Your task to perform on an android device: visit the assistant section in the google photos Image 0: 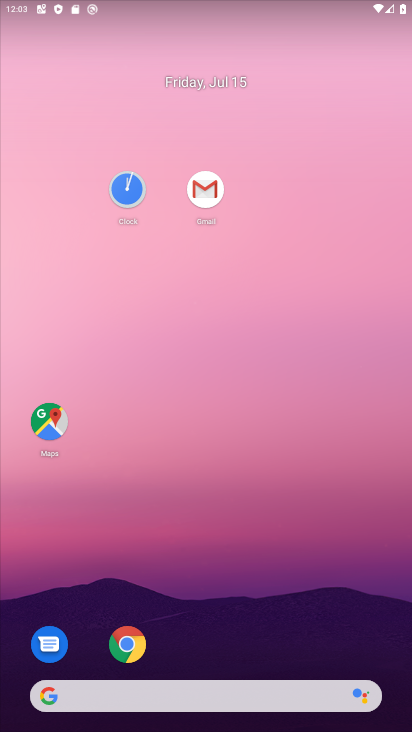
Step 0: drag from (199, 584) to (231, 199)
Your task to perform on an android device: visit the assistant section in the google photos Image 1: 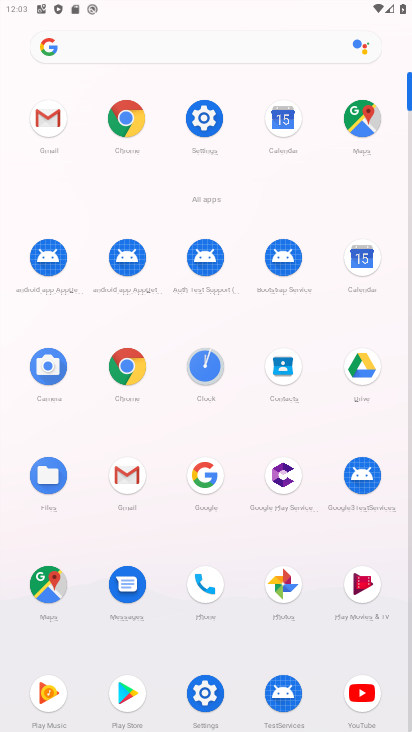
Step 1: drag from (279, 582) to (260, 283)
Your task to perform on an android device: visit the assistant section in the google photos Image 2: 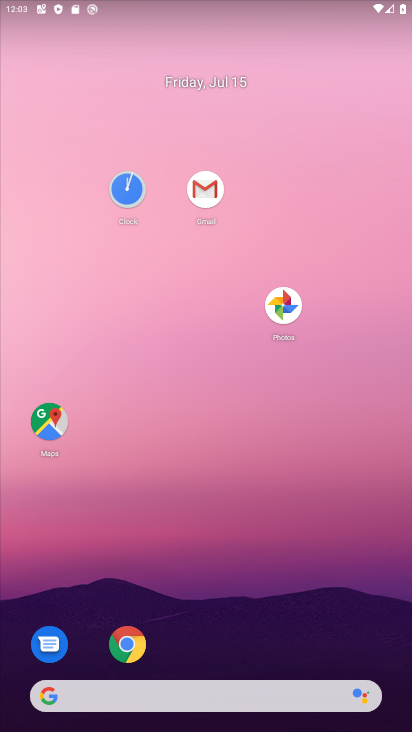
Step 2: click (284, 305)
Your task to perform on an android device: visit the assistant section in the google photos Image 3: 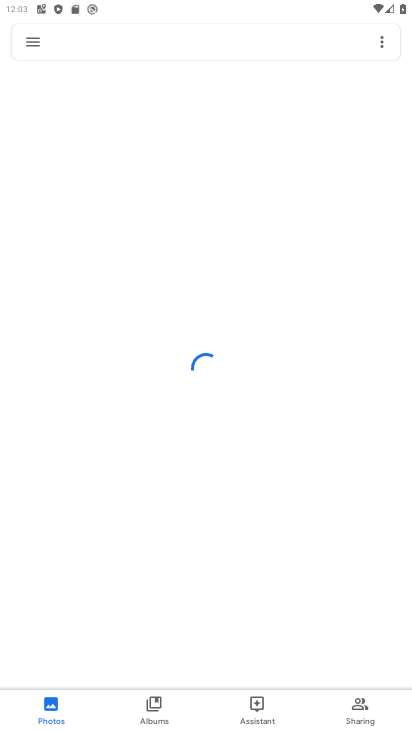
Step 3: click (261, 715)
Your task to perform on an android device: visit the assistant section in the google photos Image 4: 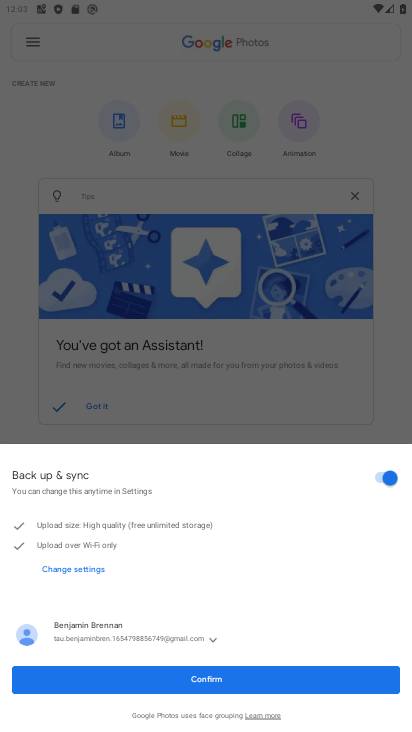
Step 4: click (243, 684)
Your task to perform on an android device: visit the assistant section in the google photos Image 5: 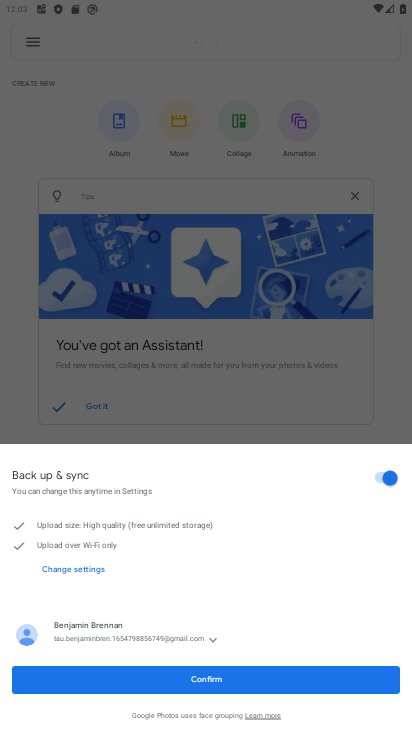
Step 5: click (342, 686)
Your task to perform on an android device: visit the assistant section in the google photos Image 6: 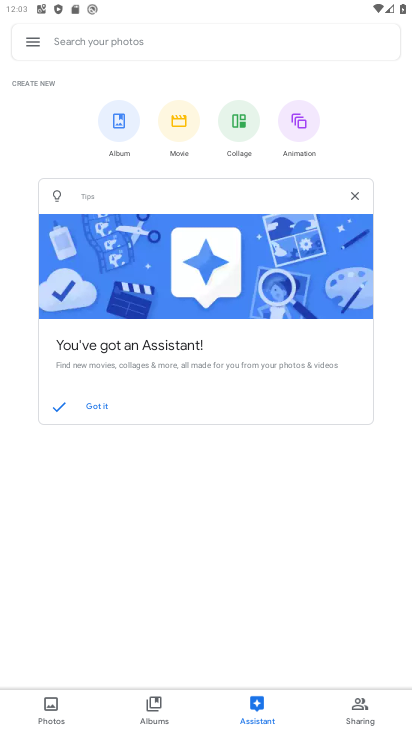
Step 6: task complete